Your task to perform on an android device: turn on the 24-hour format for clock Image 0: 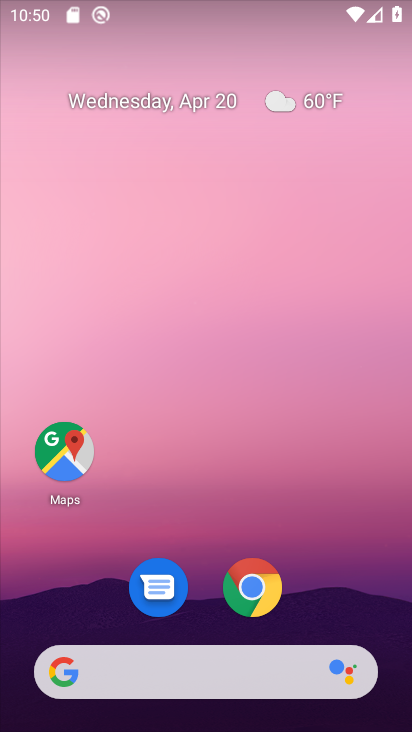
Step 0: drag from (208, 611) to (213, 63)
Your task to perform on an android device: turn on the 24-hour format for clock Image 1: 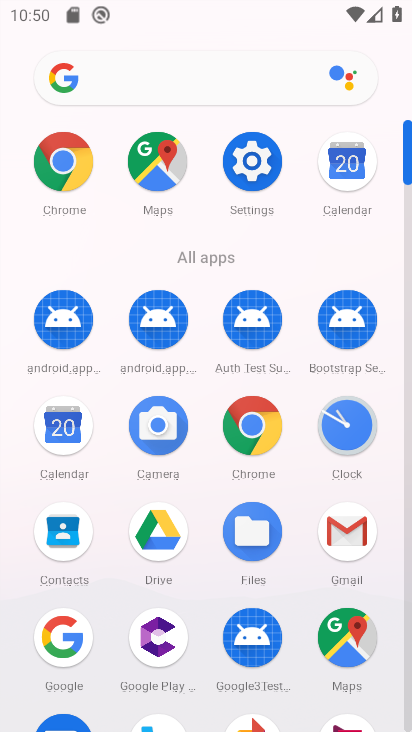
Step 1: click (344, 414)
Your task to perform on an android device: turn on the 24-hour format for clock Image 2: 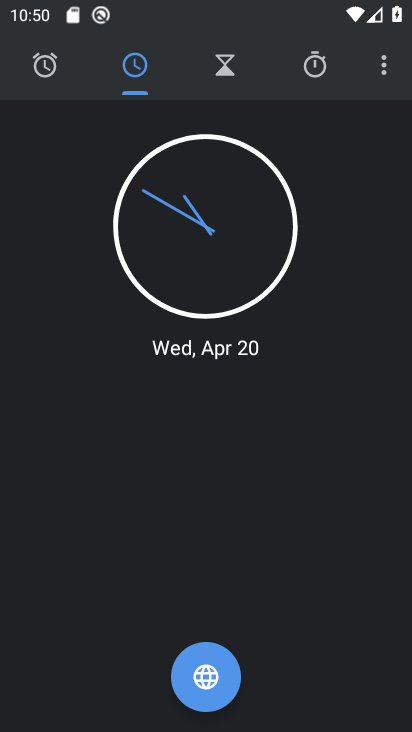
Step 2: click (381, 60)
Your task to perform on an android device: turn on the 24-hour format for clock Image 3: 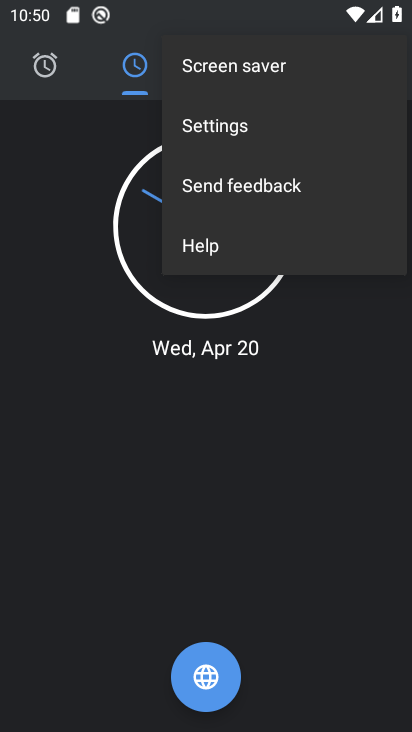
Step 3: click (257, 123)
Your task to perform on an android device: turn on the 24-hour format for clock Image 4: 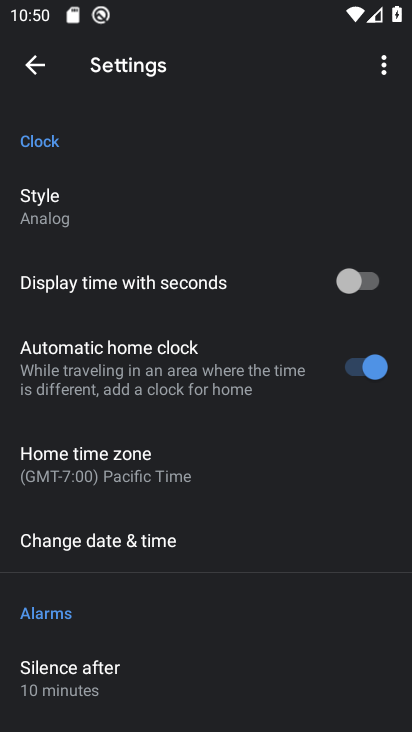
Step 4: click (185, 532)
Your task to perform on an android device: turn on the 24-hour format for clock Image 5: 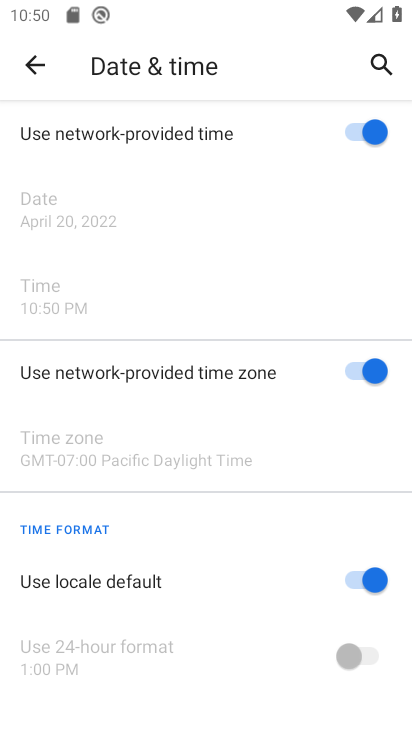
Step 5: drag from (241, 609) to (249, 209)
Your task to perform on an android device: turn on the 24-hour format for clock Image 6: 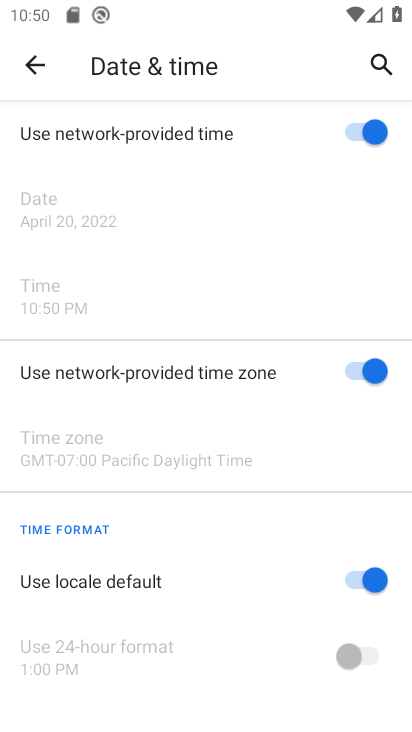
Step 6: click (371, 580)
Your task to perform on an android device: turn on the 24-hour format for clock Image 7: 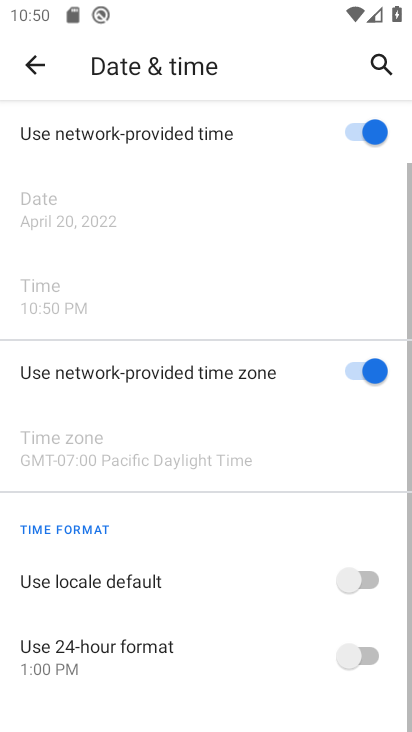
Step 7: click (368, 652)
Your task to perform on an android device: turn on the 24-hour format for clock Image 8: 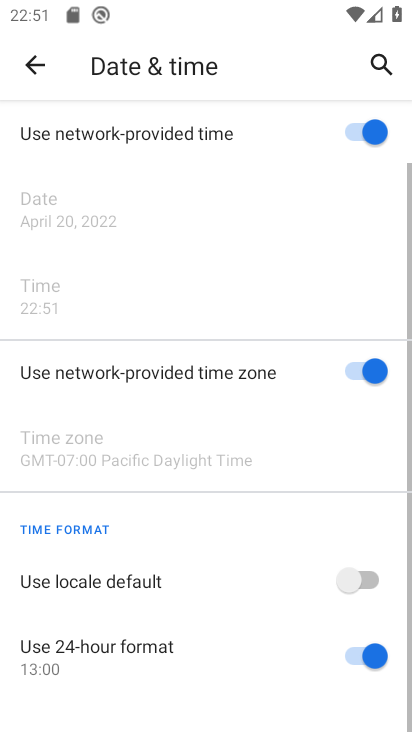
Step 8: task complete